Your task to perform on an android device: Is it going to rain tomorrow? Image 0: 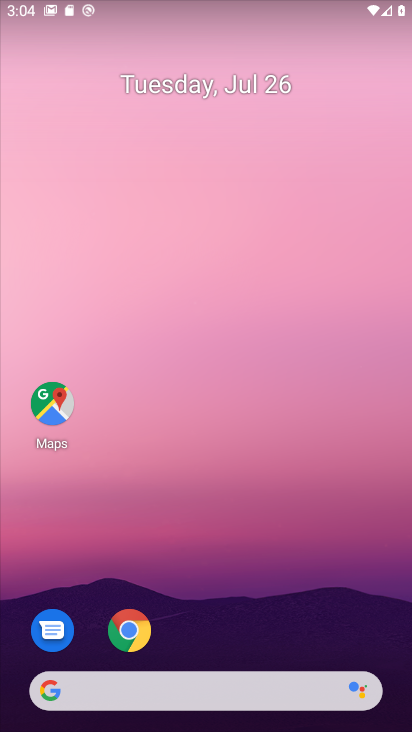
Step 0: click (151, 698)
Your task to perform on an android device: Is it going to rain tomorrow? Image 1: 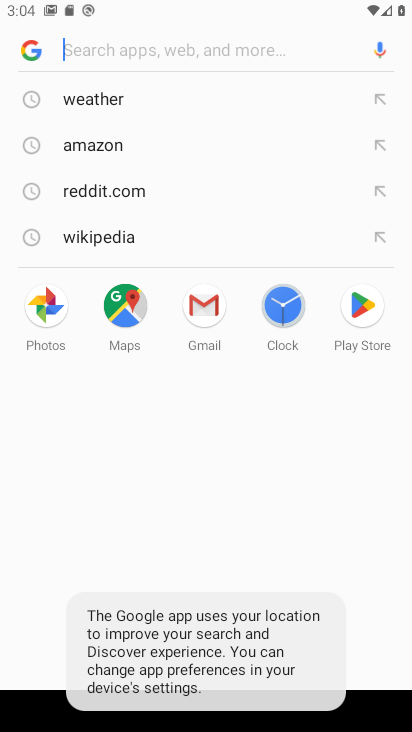
Step 1: click (131, 93)
Your task to perform on an android device: Is it going to rain tomorrow? Image 2: 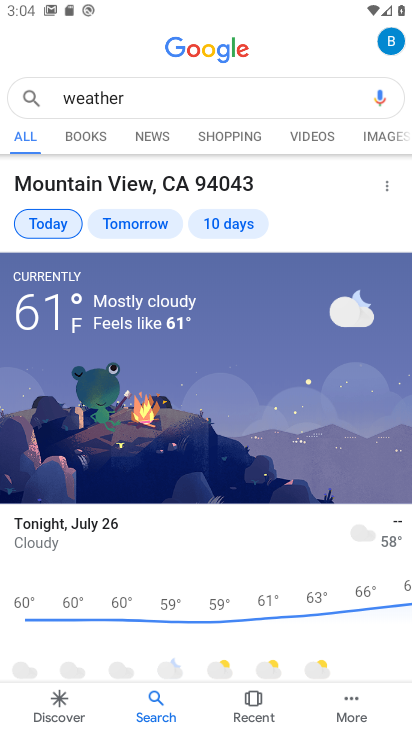
Step 2: click (141, 216)
Your task to perform on an android device: Is it going to rain tomorrow? Image 3: 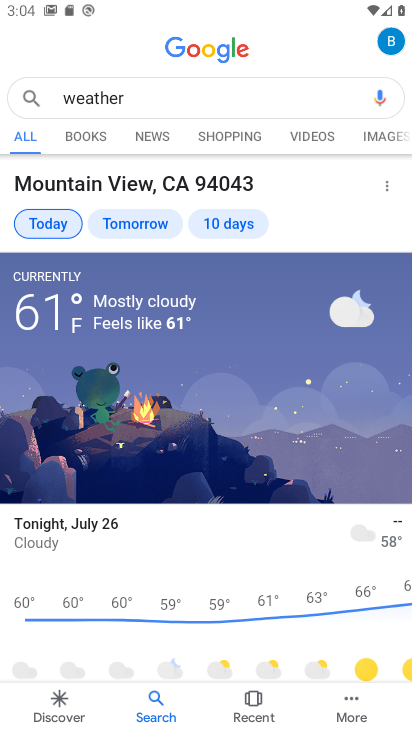
Step 3: click (141, 216)
Your task to perform on an android device: Is it going to rain tomorrow? Image 4: 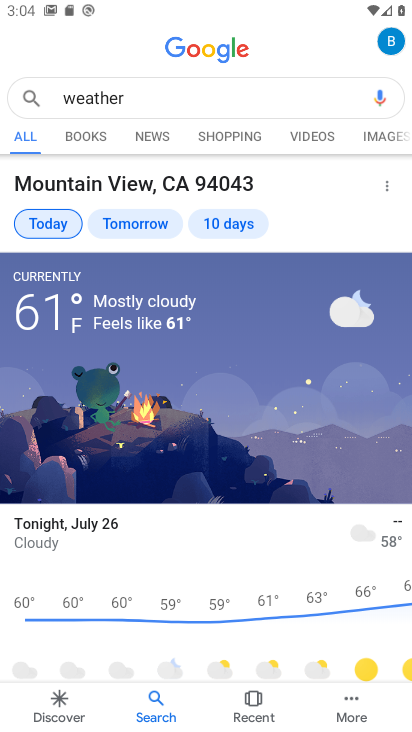
Step 4: click (141, 216)
Your task to perform on an android device: Is it going to rain tomorrow? Image 5: 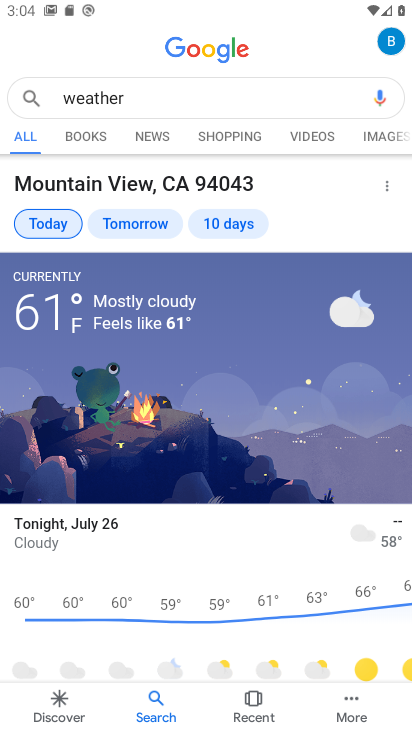
Step 5: drag from (136, 217) to (187, 201)
Your task to perform on an android device: Is it going to rain tomorrow? Image 6: 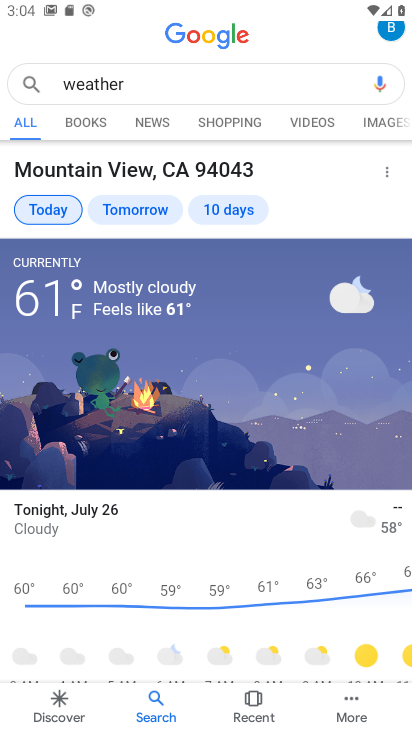
Step 6: click (155, 209)
Your task to perform on an android device: Is it going to rain tomorrow? Image 7: 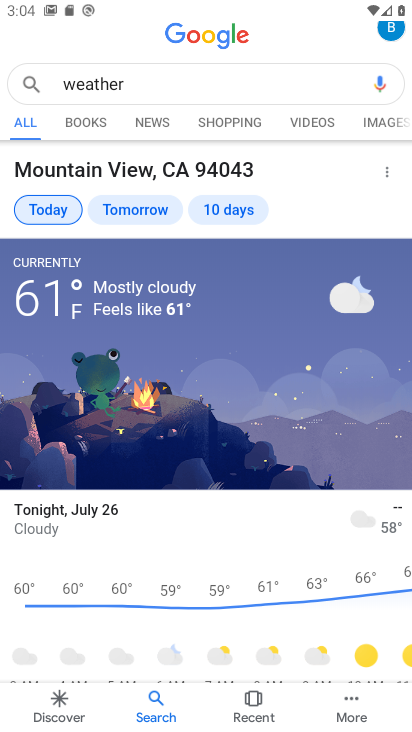
Step 7: click (155, 209)
Your task to perform on an android device: Is it going to rain tomorrow? Image 8: 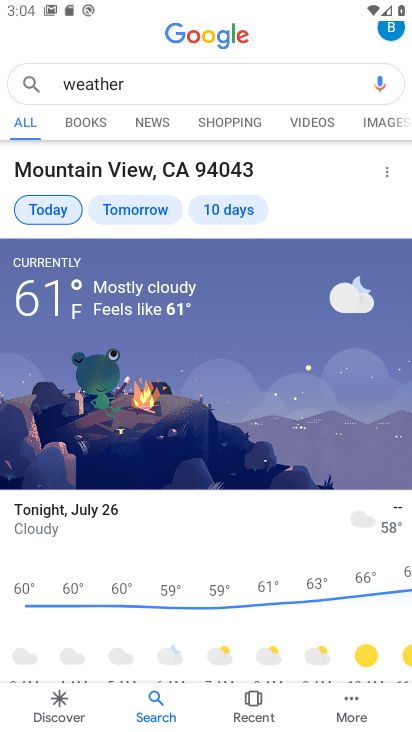
Step 8: click (155, 209)
Your task to perform on an android device: Is it going to rain tomorrow? Image 9: 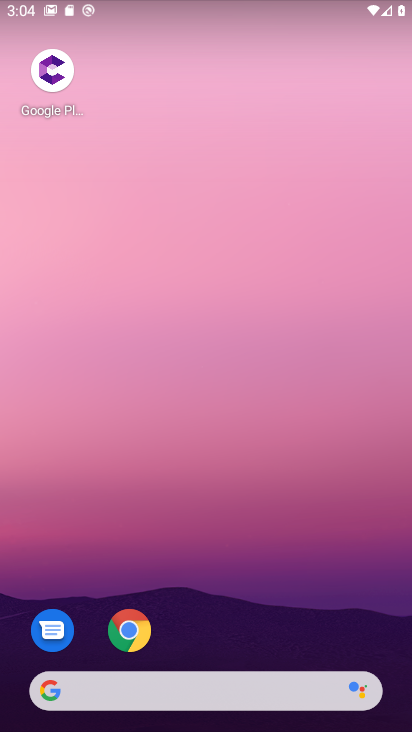
Step 9: task complete